Your task to perform on an android device: set the stopwatch Image 0: 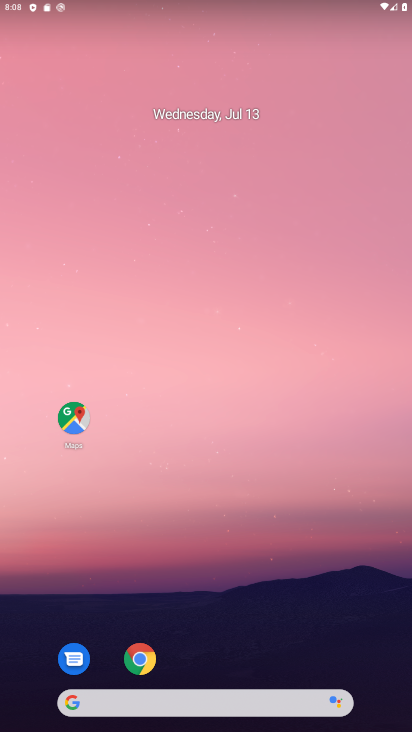
Step 0: drag from (239, 642) to (217, 223)
Your task to perform on an android device: set the stopwatch Image 1: 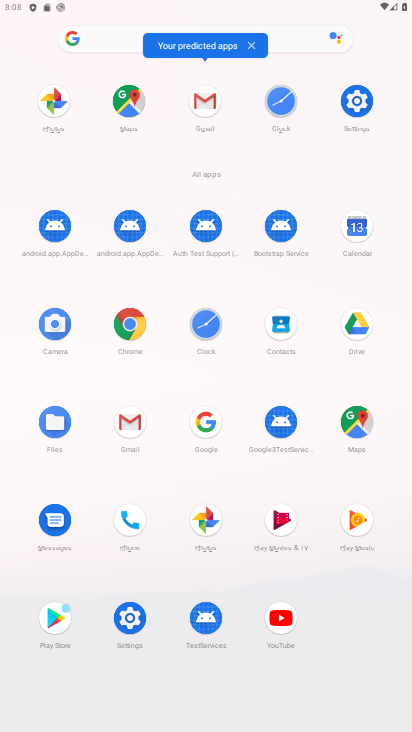
Step 1: click (276, 105)
Your task to perform on an android device: set the stopwatch Image 2: 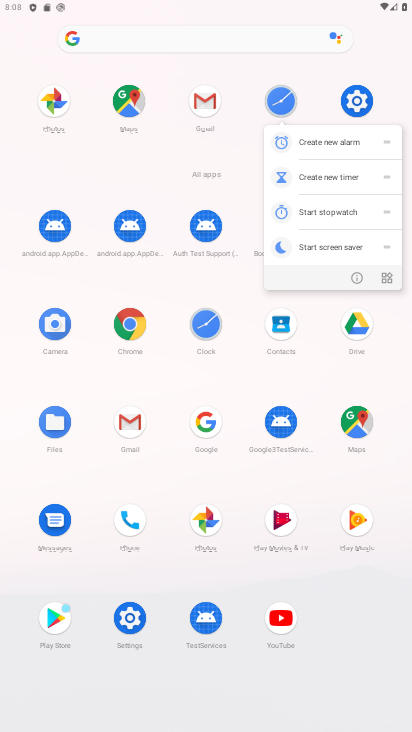
Step 2: click (276, 105)
Your task to perform on an android device: set the stopwatch Image 3: 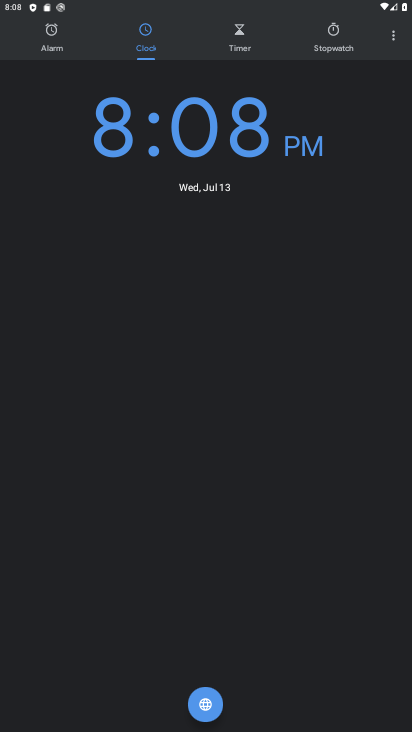
Step 3: click (335, 52)
Your task to perform on an android device: set the stopwatch Image 4: 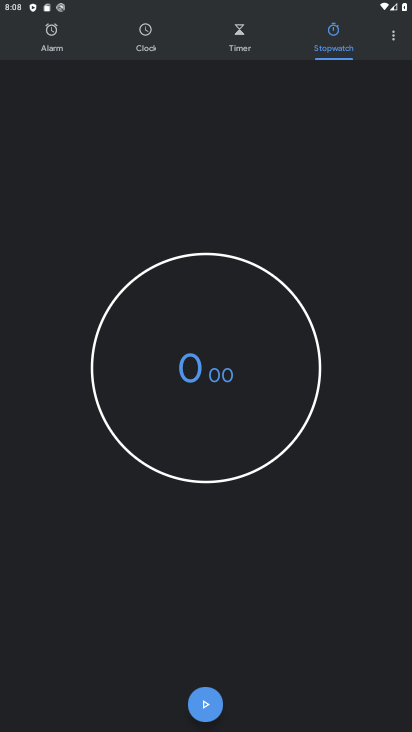
Step 4: click (210, 706)
Your task to perform on an android device: set the stopwatch Image 5: 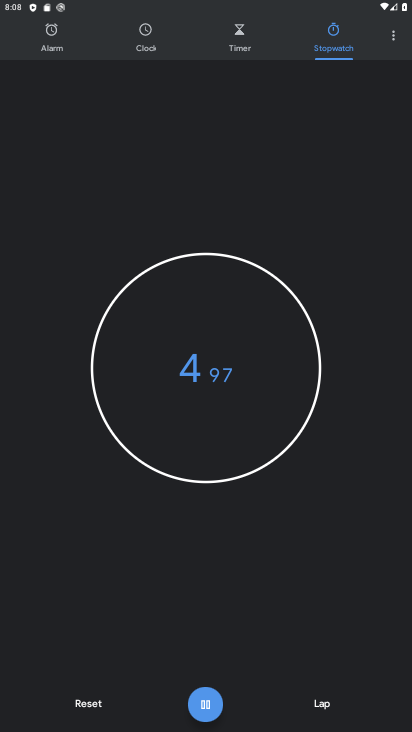
Step 5: task complete